Your task to perform on an android device: turn off location history Image 0: 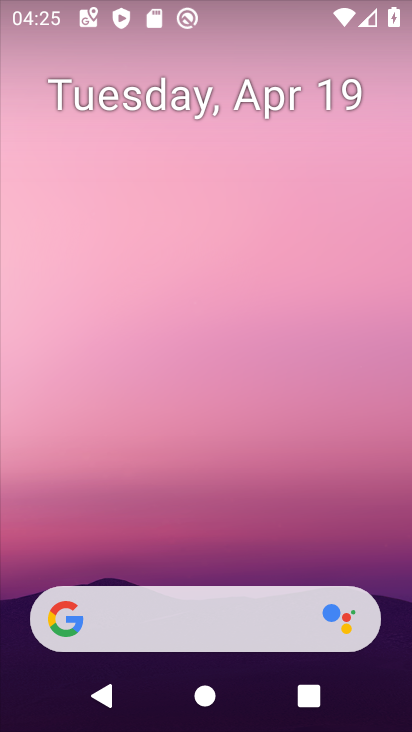
Step 0: drag from (232, 480) to (290, 143)
Your task to perform on an android device: turn off location history Image 1: 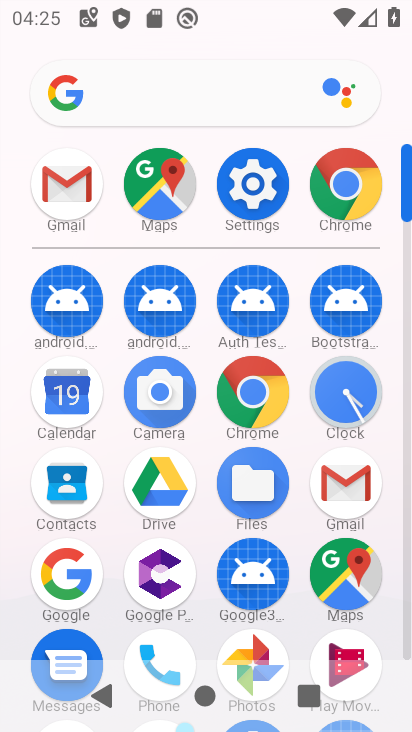
Step 1: click (238, 205)
Your task to perform on an android device: turn off location history Image 2: 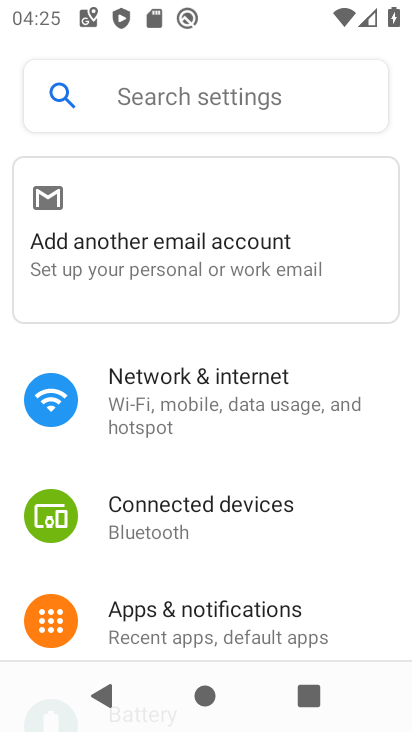
Step 2: drag from (259, 454) to (308, 246)
Your task to perform on an android device: turn off location history Image 3: 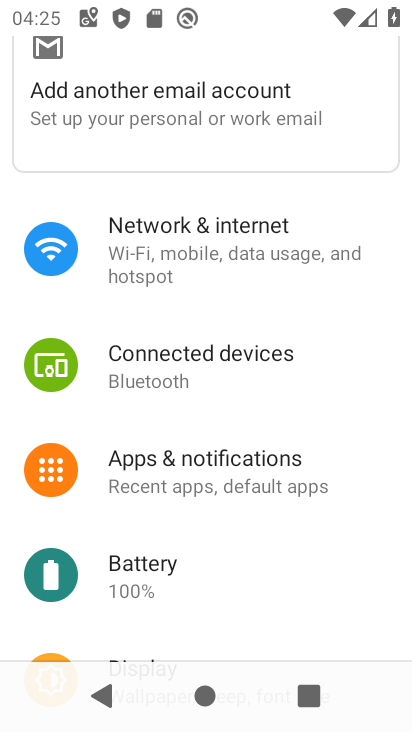
Step 3: drag from (214, 424) to (267, 185)
Your task to perform on an android device: turn off location history Image 4: 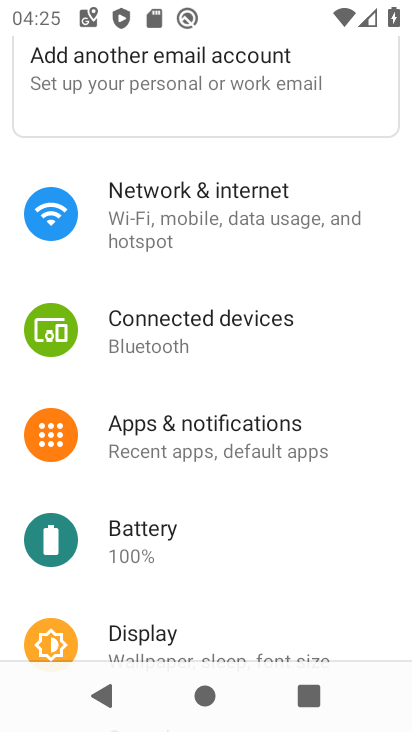
Step 4: drag from (159, 492) to (208, 248)
Your task to perform on an android device: turn off location history Image 5: 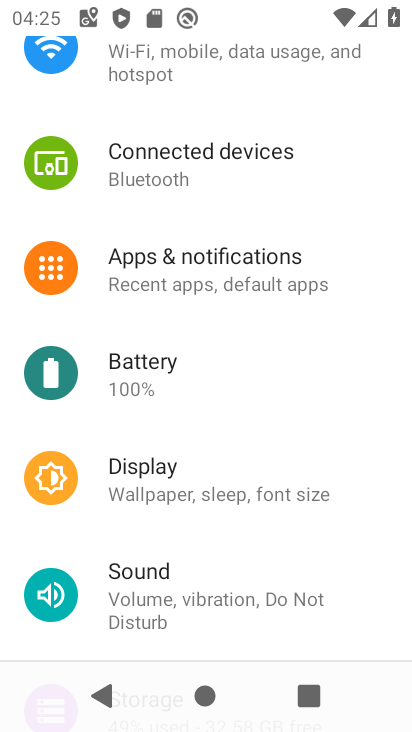
Step 5: drag from (150, 435) to (207, 237)
Your task to perform on an android device: turn off location history Image 6: 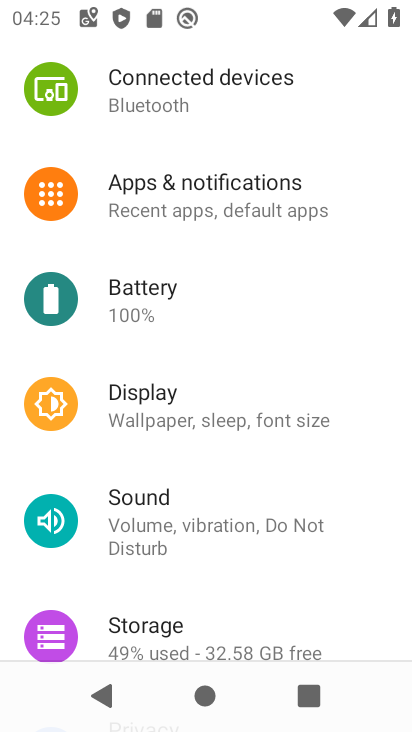
Step 6: drag from (178, 594) to (257, 305)
Your task to perform on an android device: turn off location history Image 7: 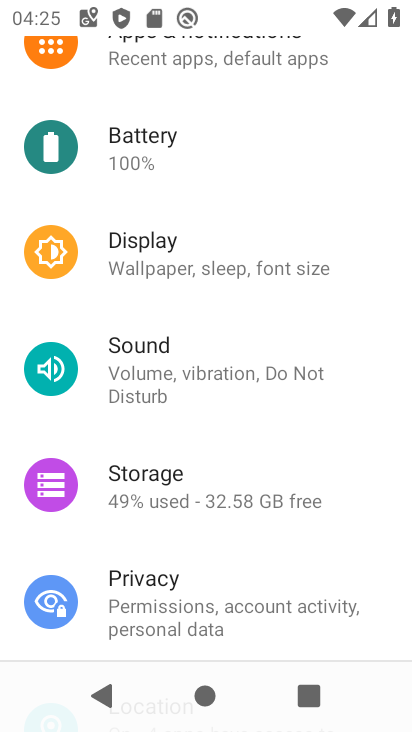
Step 7: drag from (201, 531) to (255, 257)
Your task to perform on an android device: turn off location history Image 8: 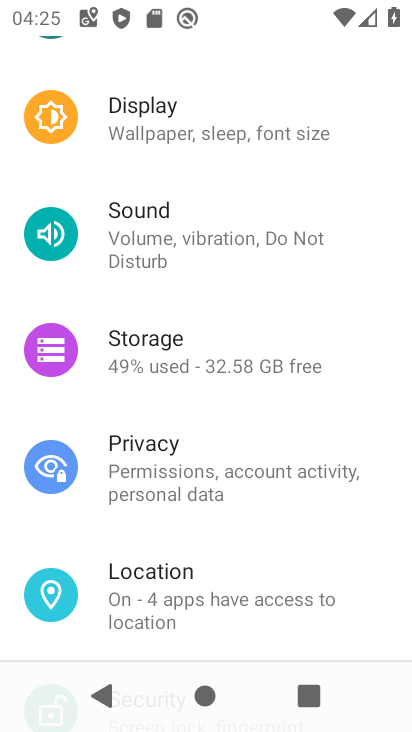
Step 8: drag from (160, 518) to (203, 279)
Your task to perform on an android device: turn off location history Image 9: 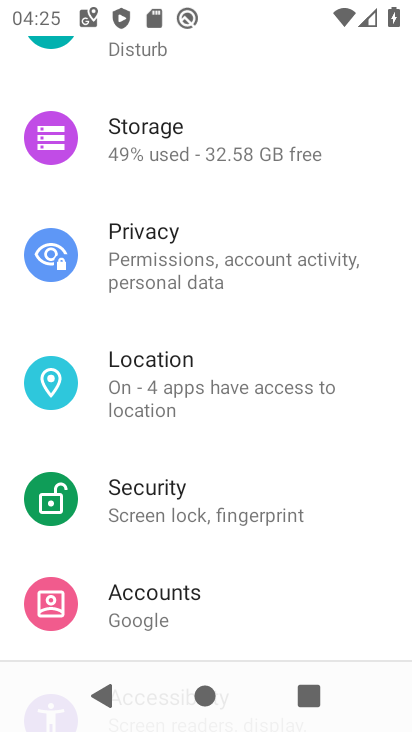
Step 9: drag from (145, 437) to (169, 289)
Your task to perform on an android device: turn off location history Image 10: 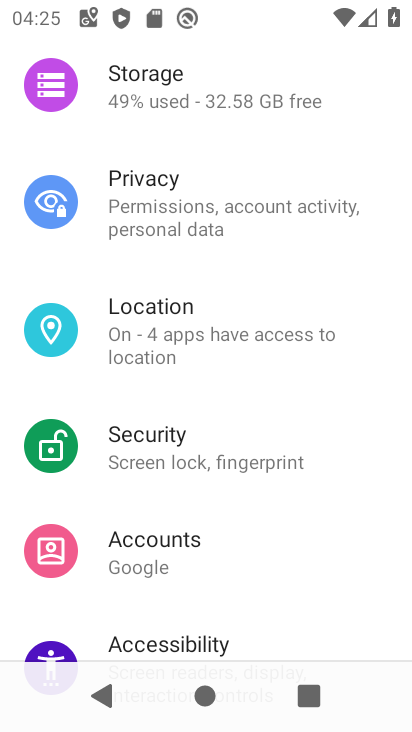
Step 10: click (155, 330)
Your task to perform on an android device: turn off location history Image 11: 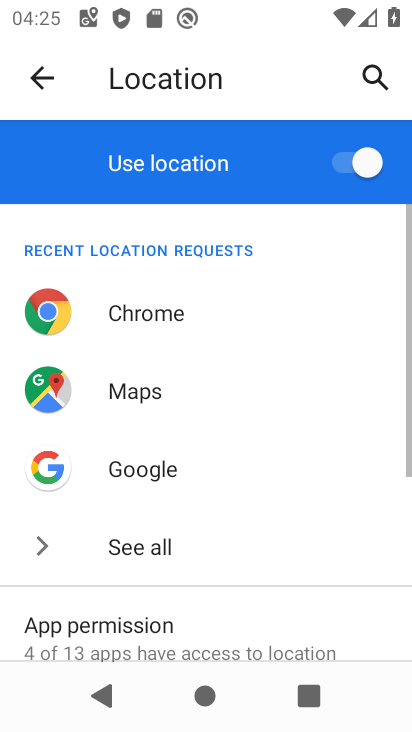
Step 11: drag from (209, 565) to (227, 340)
Your task to perform on an android device: turn off location history Image 12: 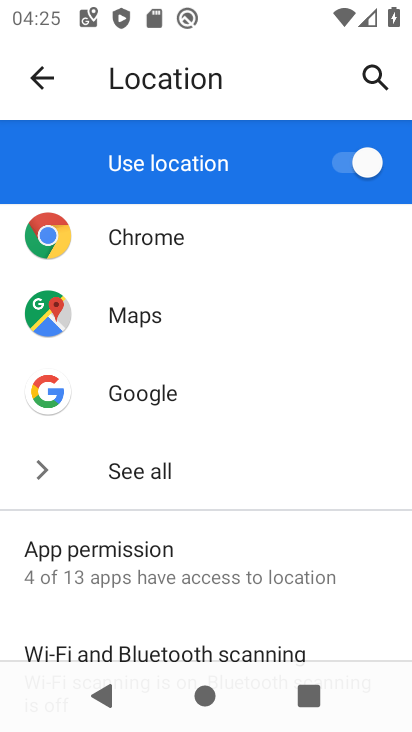
Step 12: drag from (248, 507) to (278, 327)
Your task to perform on an android device: turn off location history Image 13: 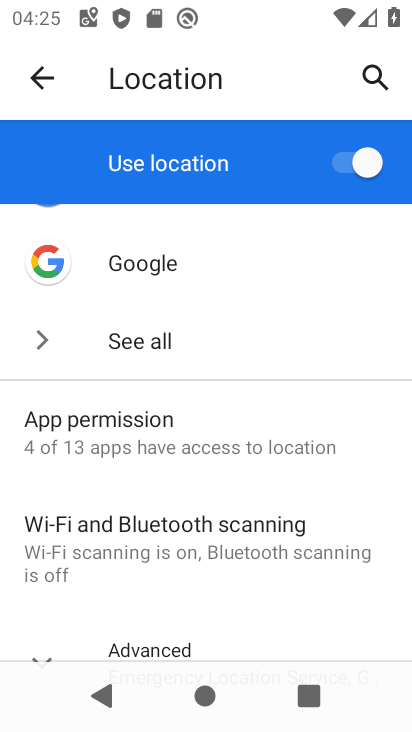
Step 13: drag from (213, 476) to (232, 300)
Your task to perform on an android device: turn off location history Image 14: 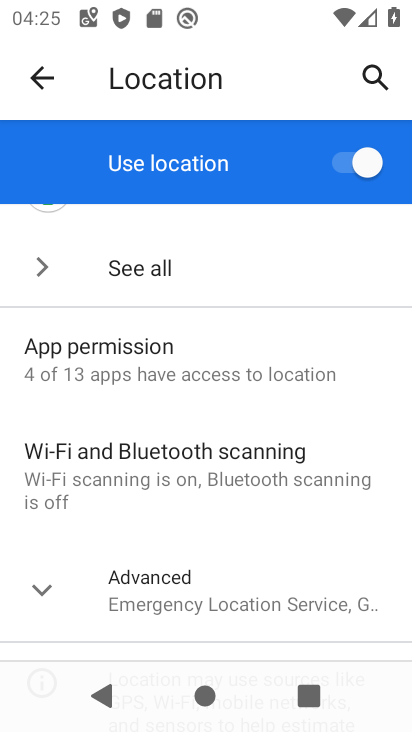
Step 14: click (184, 603)
Your task to perform on an android device: turn off location history Image 15: 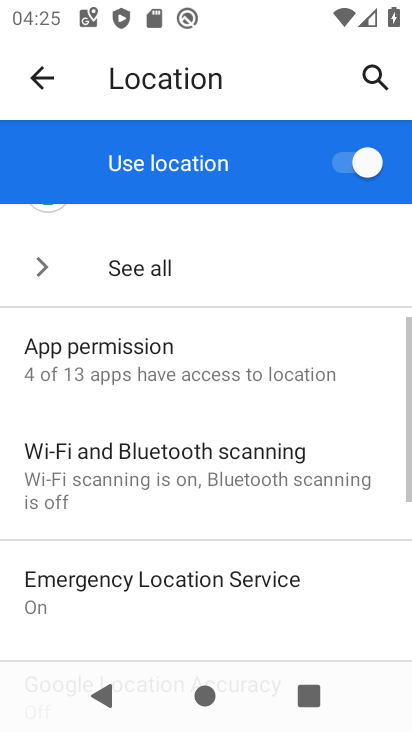
Step 15: task complete